Your task to perform on an android device: check out phone information Image 0: 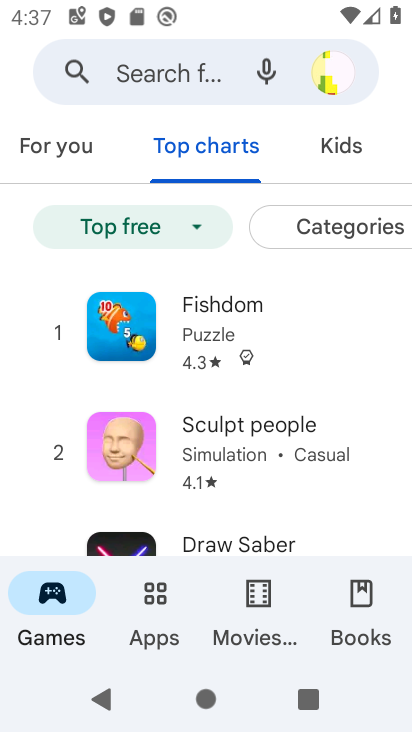
Step 0: press home button
Your task to perform on an android device: check out phone information Image 1: 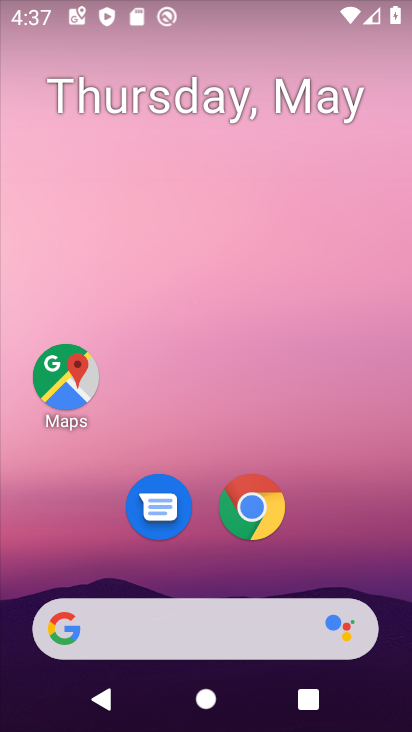
Step 1: drag from (215, 495) to (212, 66)
Your task to perform on an android device: check out phone information Image 2: 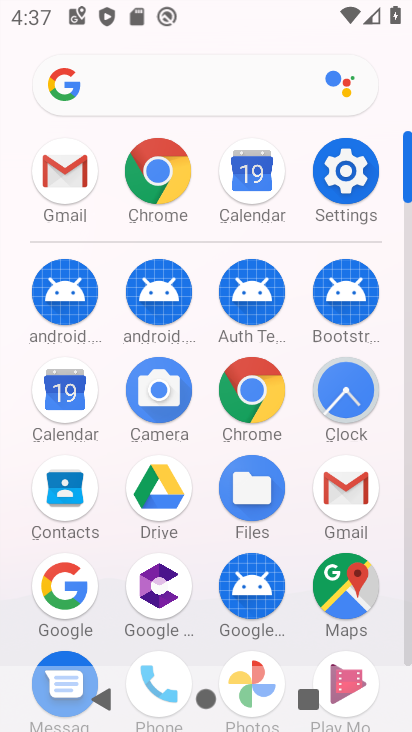
Step 2: click (340, 182)
Your task to perform on an android device: check out phone information Image 3: 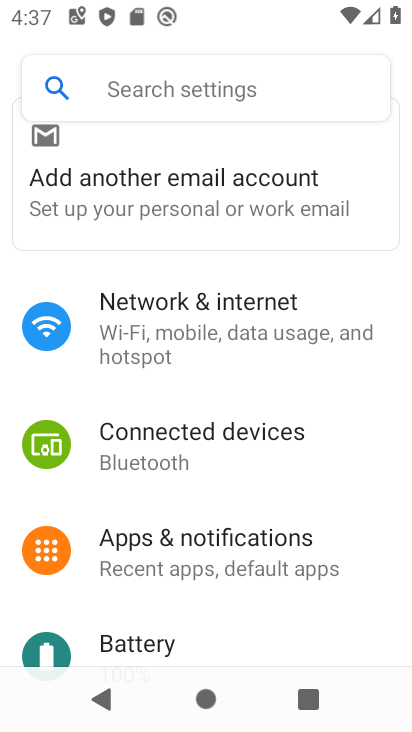
Step 3: drag from (179, 585) to (204, 88)
Your task to perform on an android device: check out phone information Image 4: 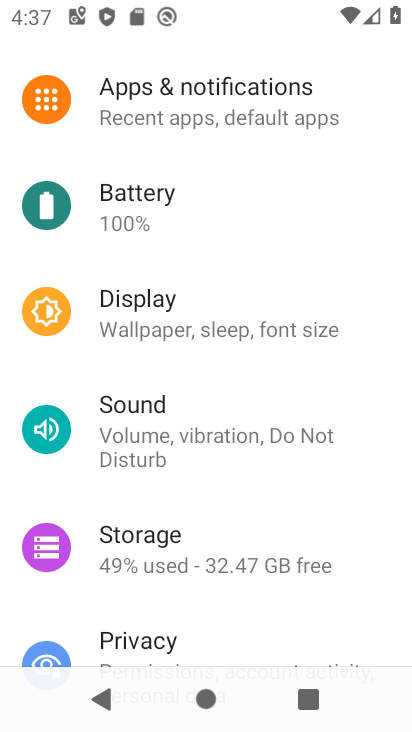
Step 4: drag from (199, 576) to (233, 23)
Your task to perform on an android device: check out phone information Image 5: 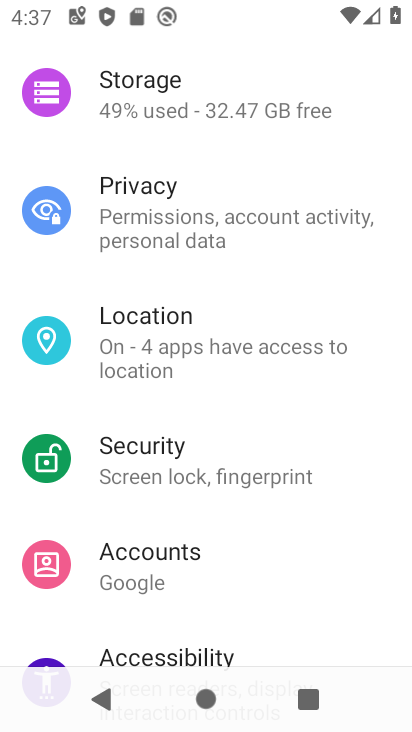
Step 5: drag from (147, 496) to (163, 71)
Your task to perform on an android device: check out phone information Image 6: 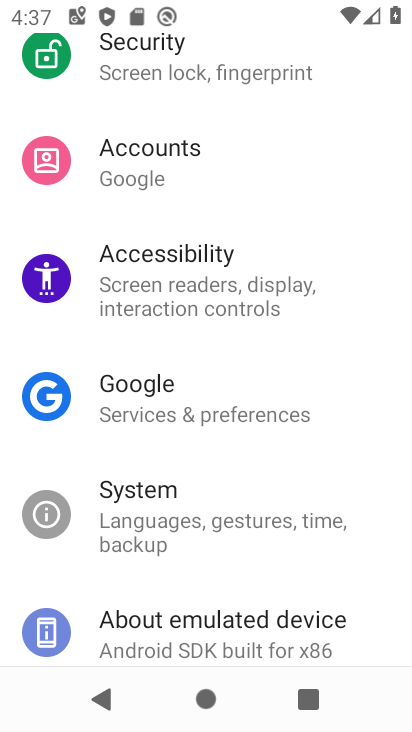
Step 6: click (198, 616)
Your task to perform on an android device: check out phone information Image 7: 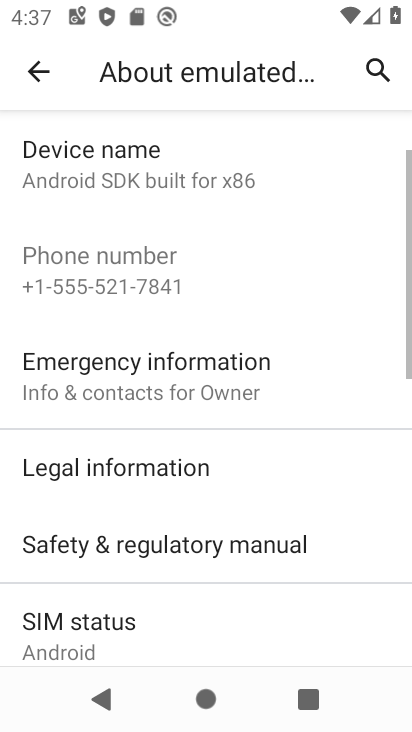
Step 7: task complete